Your task to perform on an android device: make emails show in primary in the gmail app Image 0: 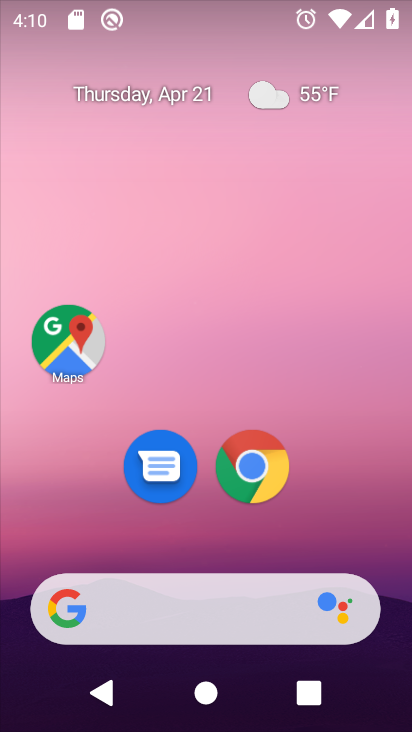
Step 0: drag from (187, 409) to (147, 77)
Your task to perform on an android device: make emails show in primary in the gmail app Image 1: 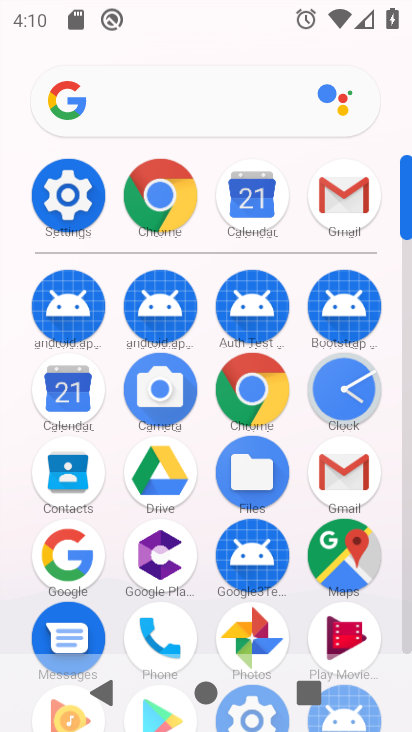
Step 1: click (327, 470)
Your task to perform on an android device: make emails show in primary in the gmail app Image 2: 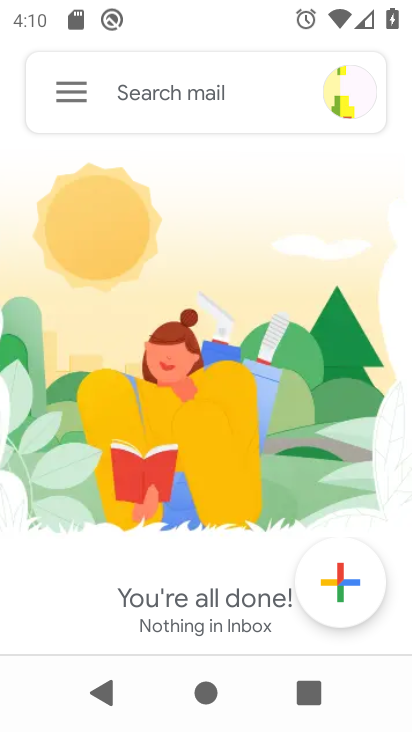
Step 2: click (59, 95)
Your task to perform on an android device: make emails show in primary in the gmail app Image 3: 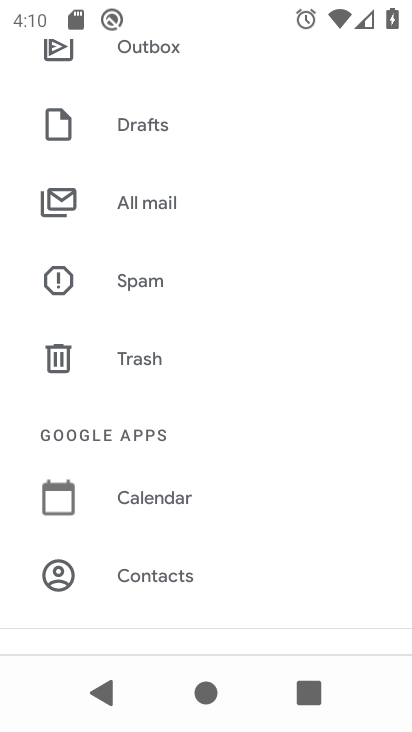
Step 3: drag from (233, 538) to (197, 99)
Your task to perform on an android device: make emails show in primary in the gmail app Image 4: 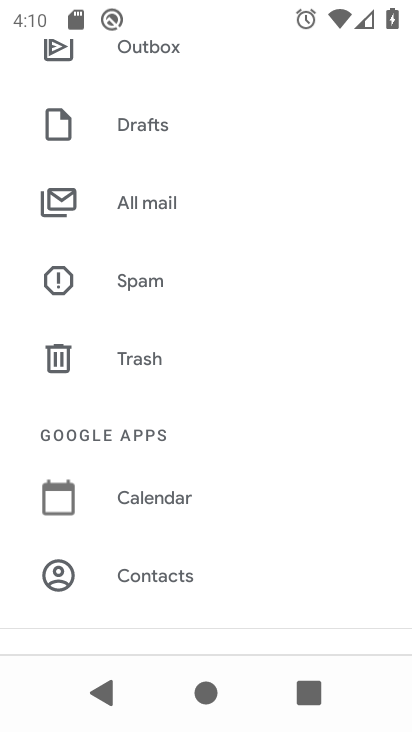
Step 4: drag from (220, 477) to (239, 25)
Your task to perform on an android device: make emails show in primary in the gmail app Image 5: 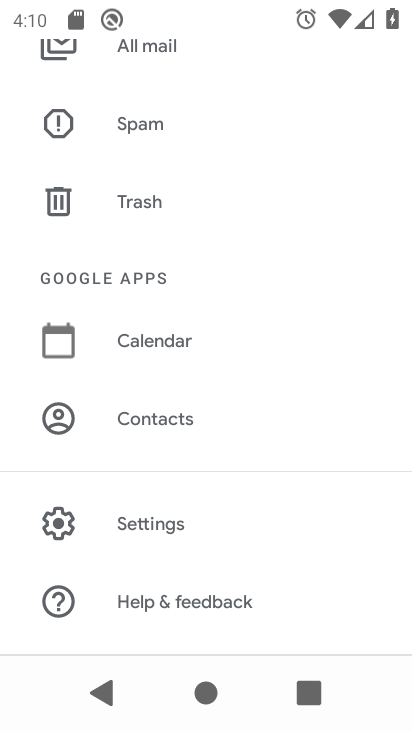
Step 5: click (220, 505)
Your task to perform on an android device: make emails show in primary in the gmail app Image 6: 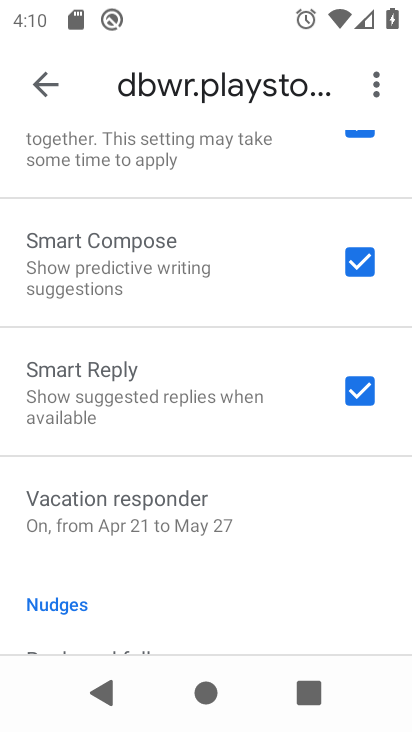
Step 6: drag from (207, 487) to (155, 87)
Your task to perform on an android device: make emails show in primary in the gmail app Image 7: 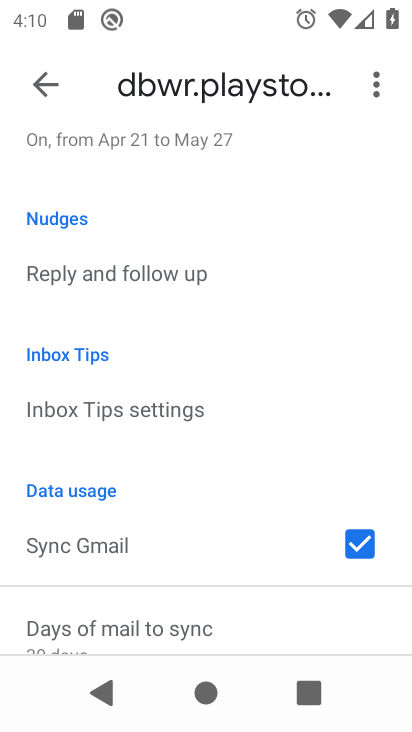
Step 7: drag from (183, 511) to (153, 176)
Your task to perform on an android device: make emails show in primary in the gmail app Image 8: 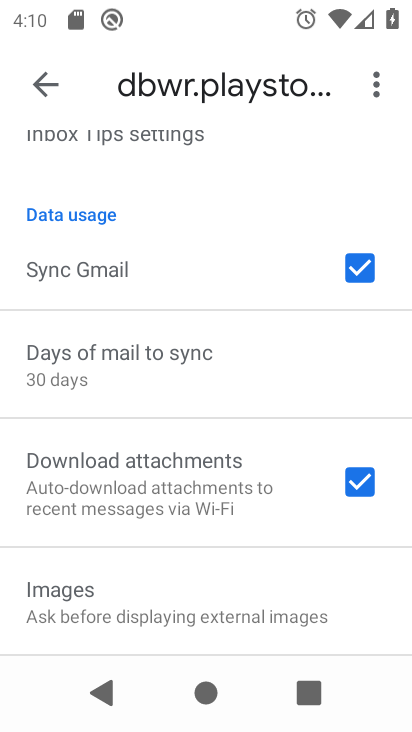
Step 8: drag from (203, 485) to (175, 137)
Your task to perform on an android device: make emails show in primary in the gmail app Image 9: 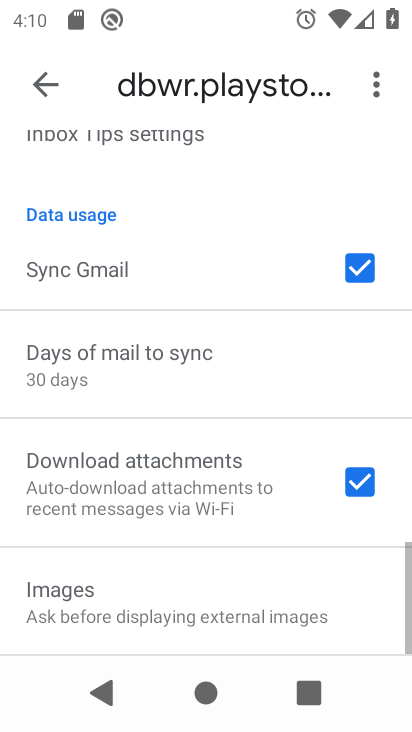
Step 9: drag from (180, 192) to (234, 497)
Your task to perform on an android device: make emails show in primary in the gmail app Image 10: 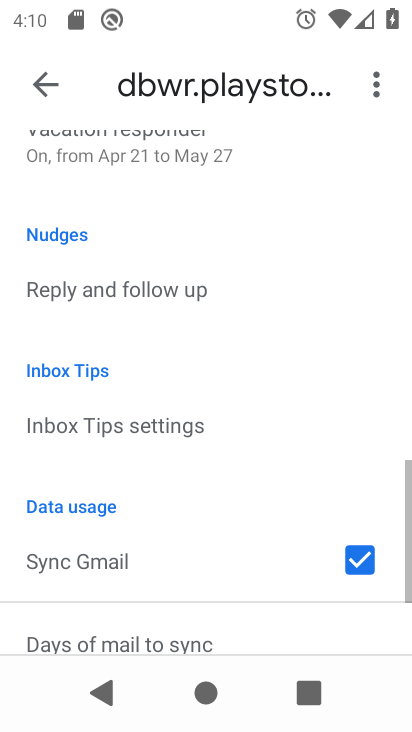
Step 10: drag from (224, 211) to (288, 556)
Your task to perform on an android device: make emails show in primary in the gmail app Image 11: 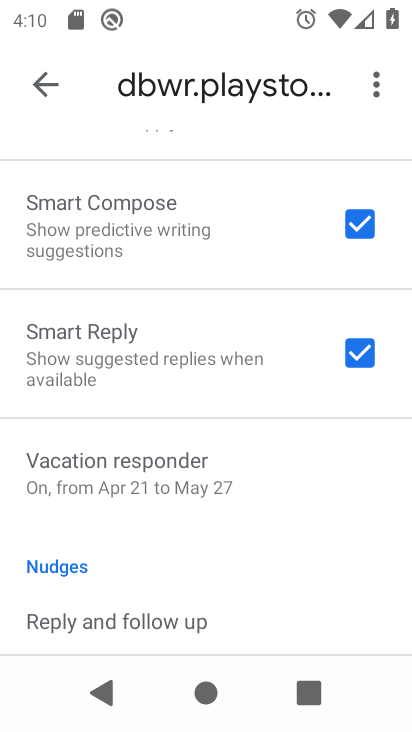
Step 11: click (326, 649)
Your task to perform on an android device: make emails show in primary in the gmail app Image 12: 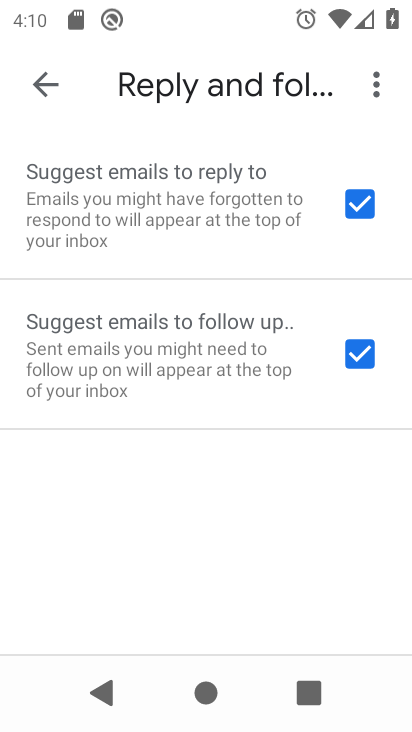
Step 12: click (53, 69)
Your task to perform on an android device: make emails show in primary in the gmail app Image 13: 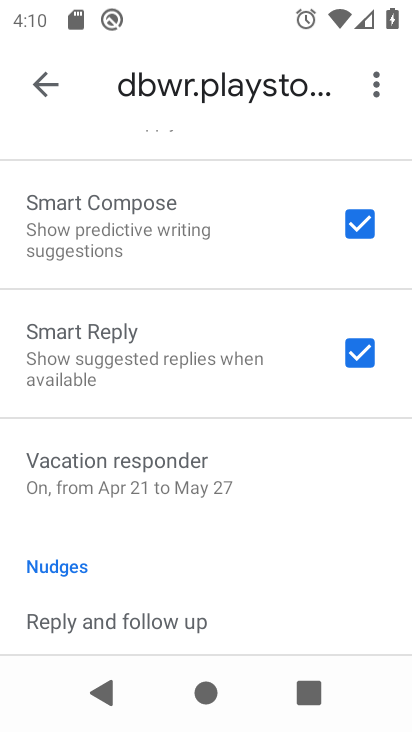
Step 13: drag from (191, 260) to (237, 591)
Your task to perform on an android device: make emails show in primary in the gmail app Image 14: 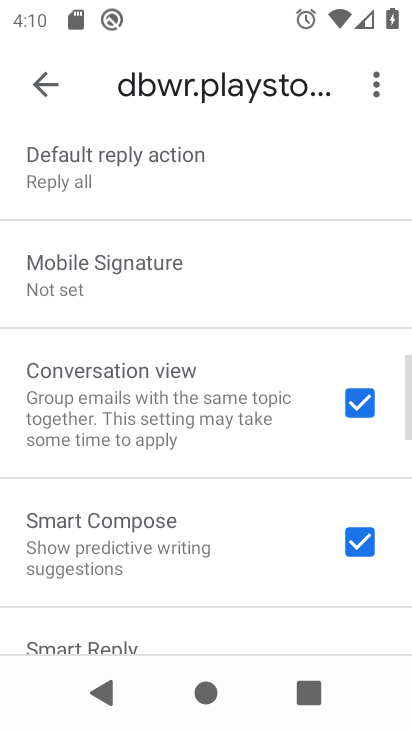
Step 14: drag from (217, 160) to (213, 532)
Your task to perform on an android device: make emails show in primary in the gmail app Image 15: 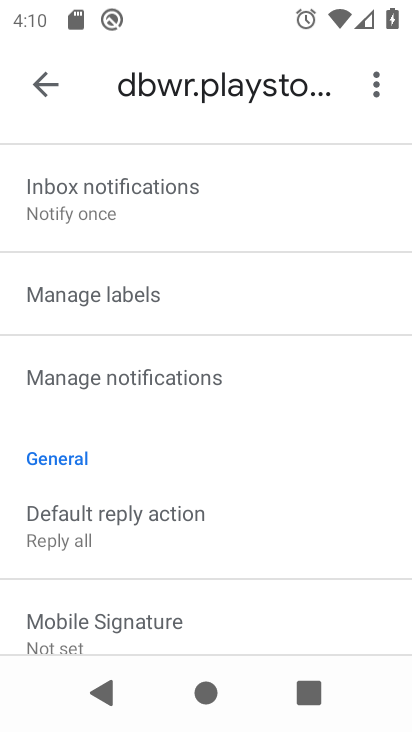
Step 15: drag from (335, 282) to (324, 542)
Your task to perform on an android device: make emails show in primary in the gmail app Image 16: 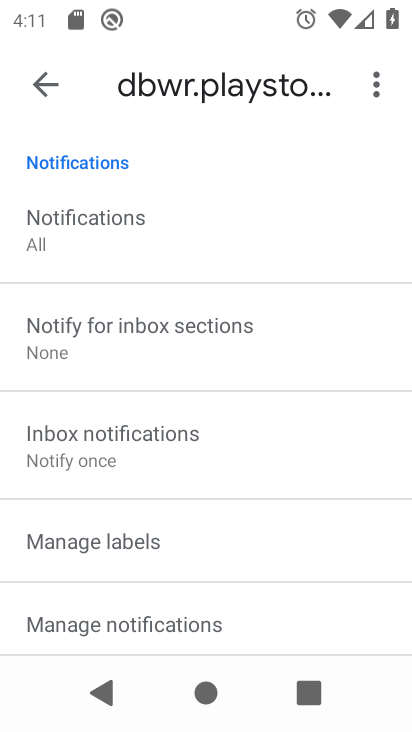
Step 16: drag from (254, 223) to (300, 613)
Your task to perform on an android device: make emails show in primary in the gmail app Image 17: 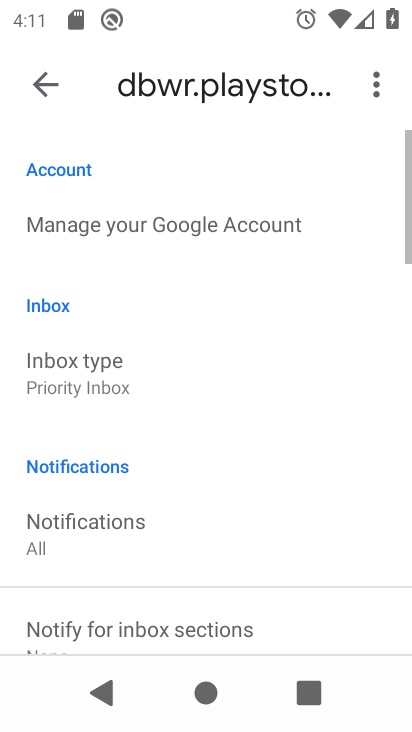
Step 17: click (219, 364)
Your task to perform on an android device: make emails show in primary in the gmail app Image 18: 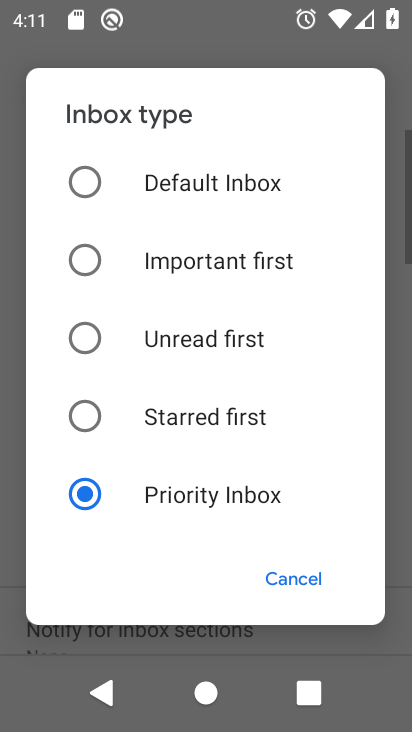
Step 18: click (83, 197)
Your task to perform on an android device: make emails show in primary in the gmail app Image 19: 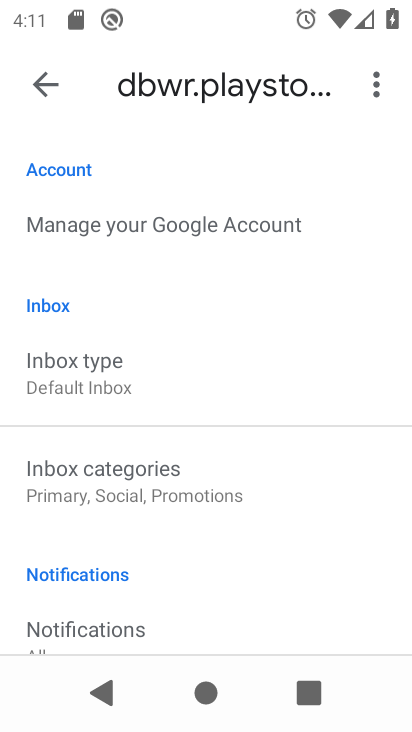
Step 19: click (167, 501)
Your task to perform on an android device: make emails show in primary in the gmail app Image 20: 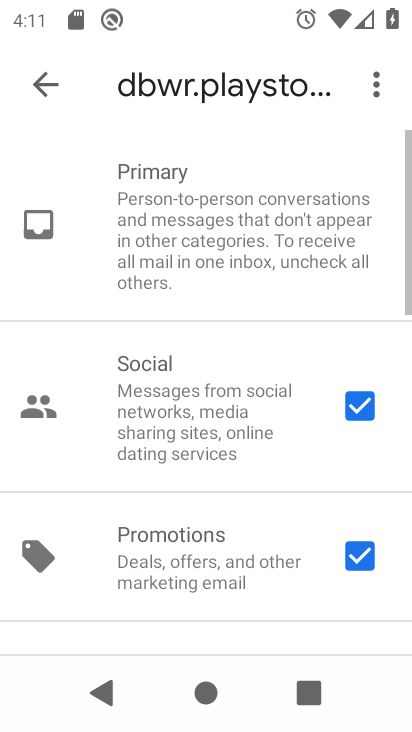
Step 20: click (337, 403)
Your task to perform on an android device: make emails show in primary in the gmail app Image 21: 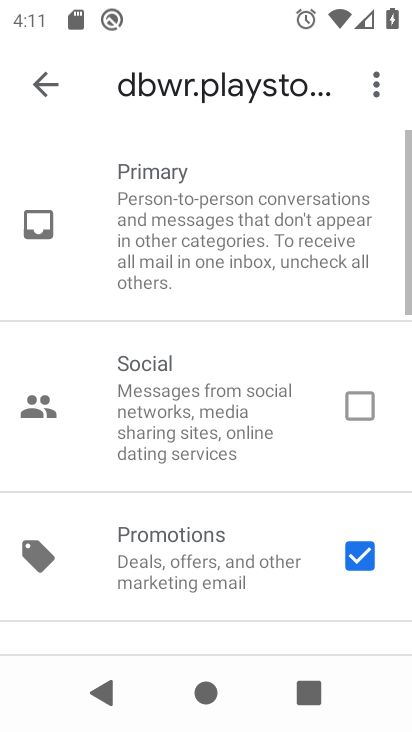
Step 21: click (357, 543)
Your task to perform on an android device: make emails show in primary in the gmail app Image 22: 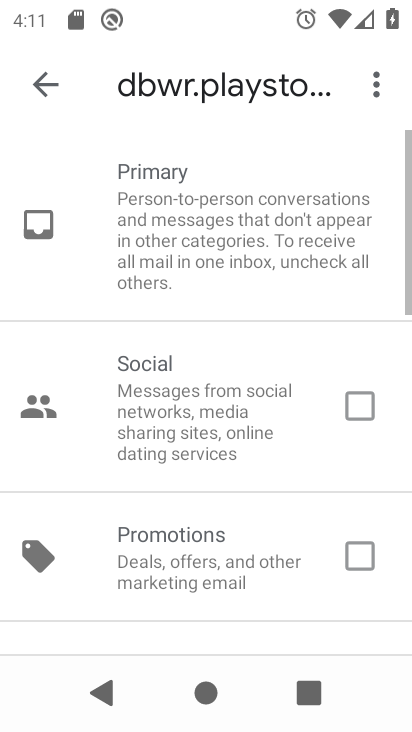
Step 22: task complete